Your task to perform on an android device: toggle sleep mode Image 0: 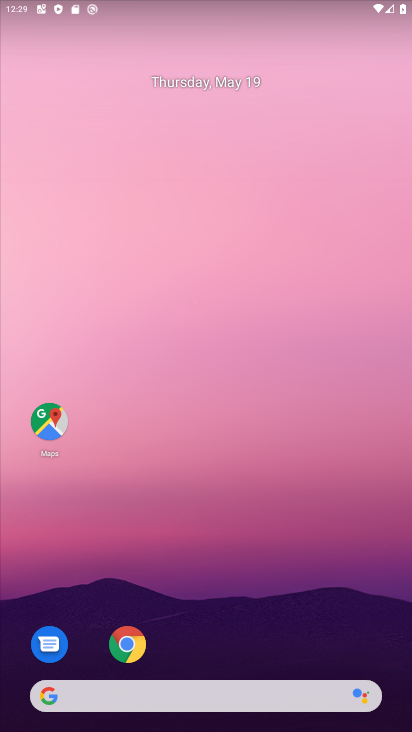
Step 0: drag from (276, 629) to (287, 292)
Your task to perform on an android device: toggle sleep mode Image 1: 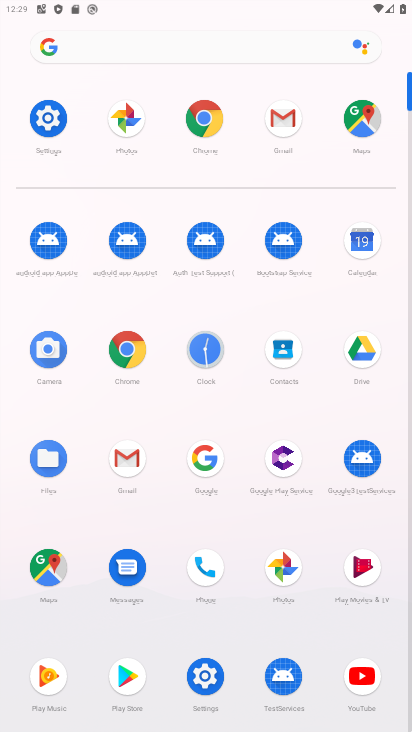
Step 1: click (205, 673)
Your task to perform on an android device: toggle sleep mode Image 2: 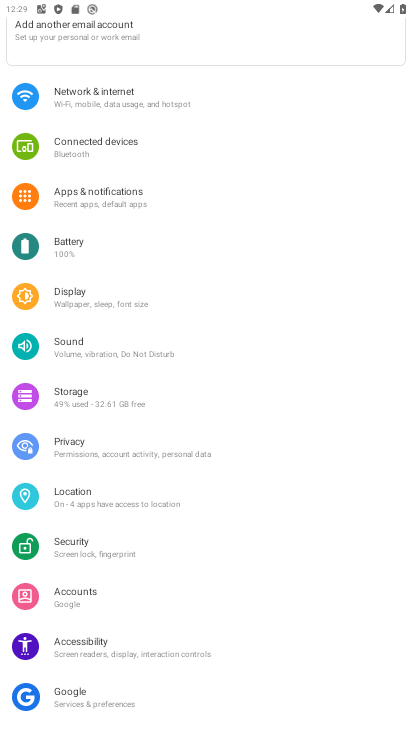
Step 2: drag from (242, 165) to (245, 538)
Your task to perform on an android device: toggle sleep mode Image 3: 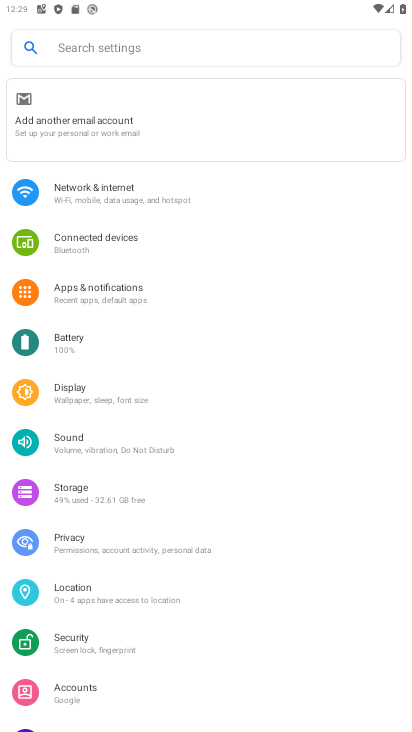
Step 3: click (221, 38)
Your task to perform on an android device: toggle sleep mode Image 4: 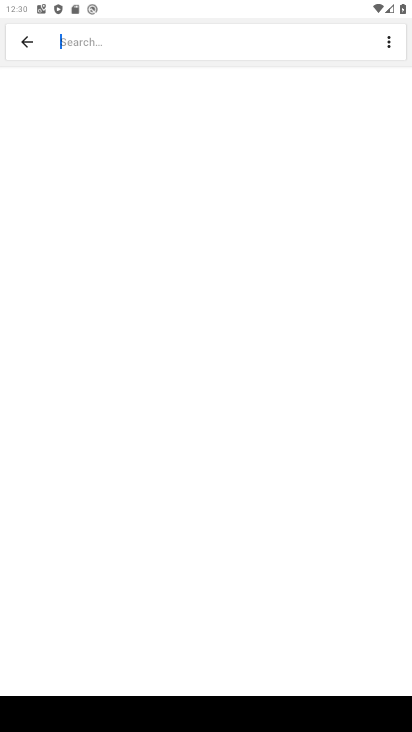
Step 4: type "sleep mode"
Your task to perform on an android device: toggle sleep mode Image 5: 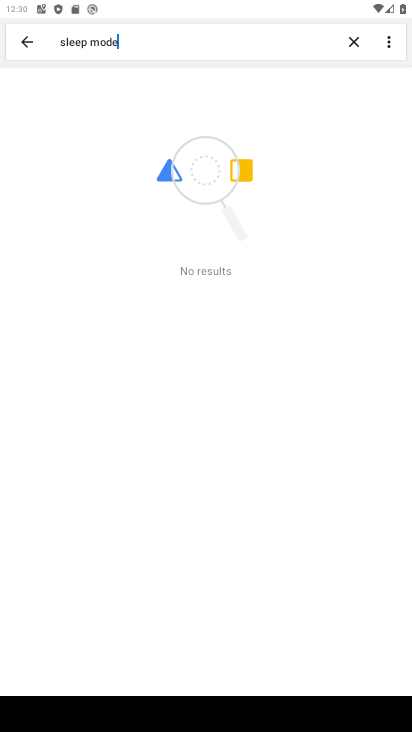
Step 5: task complete